Your task to perform on an android device: Open Google Chrome and click the shortcut for Amazon.com Image 0: 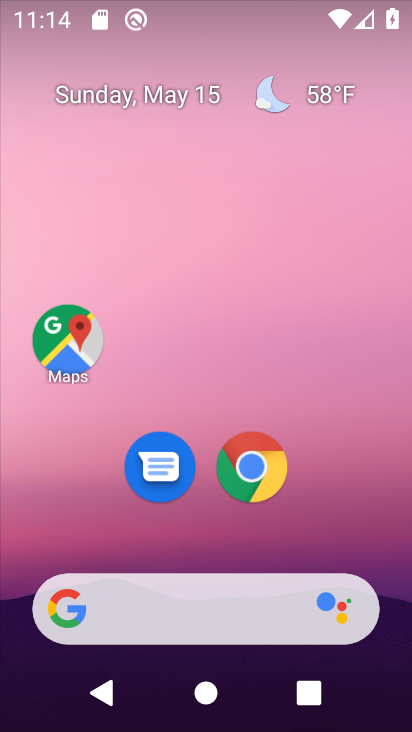
Step 0: click (247, 465)
Your task to perform on an android device: Open Google Chrome and click the shortcut for Amazon.com Image 1: 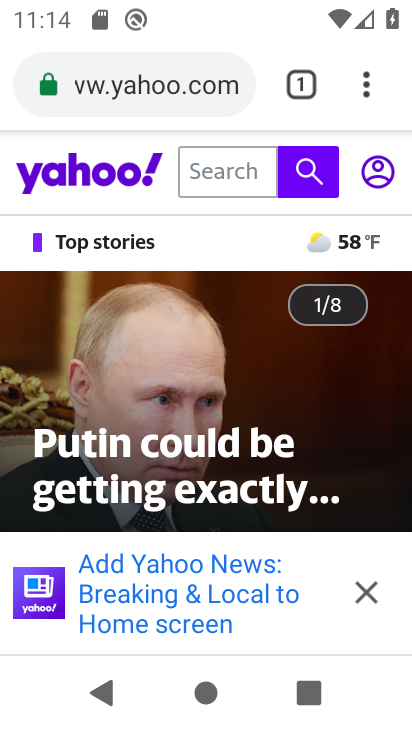
Step 1: press home button
Your task to perform on an android device: Open Google Chrome and click the shortcut for Amazon.com Image 2: 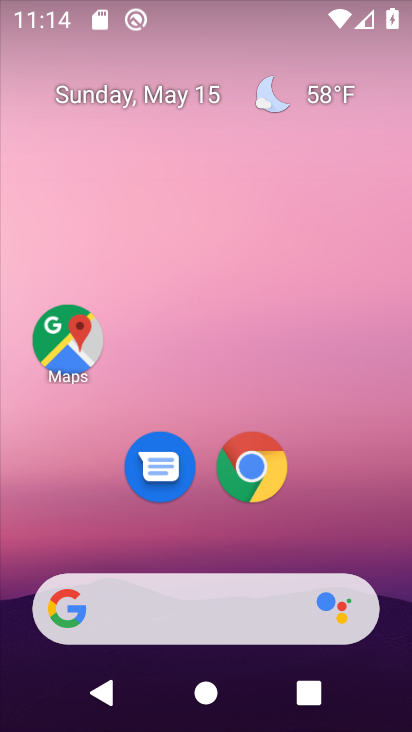
Step 2: click (255, 467)
Your task to perform on an android device: Open Google Chrome and click the shortcut for Amazon.com Image 3: 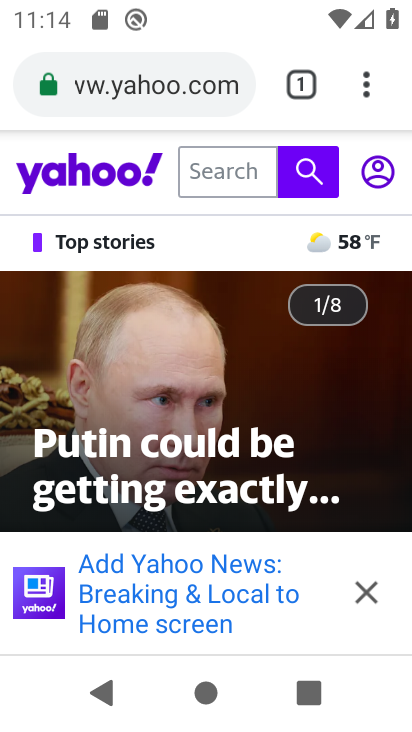
Step 3: click (290, 79)
Your task to perform on an android device: Open Google Chrome and click the shortcut for Amazon.com Image 4: 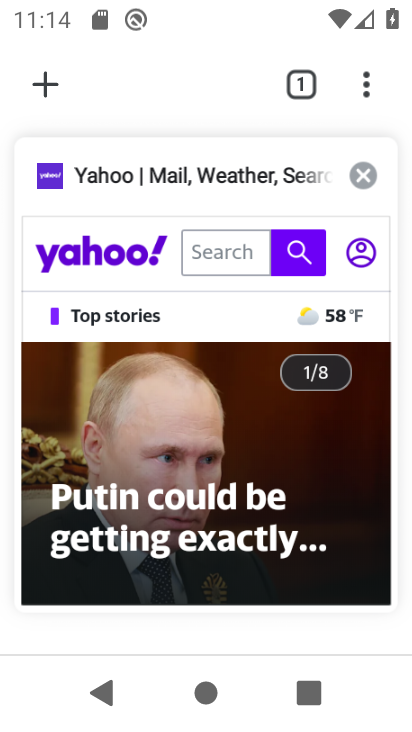
Step 4: click (364, 167)
Your task to perform on an android device: Open Google Chrome and click the shortcut for Amazon.com Image 5: 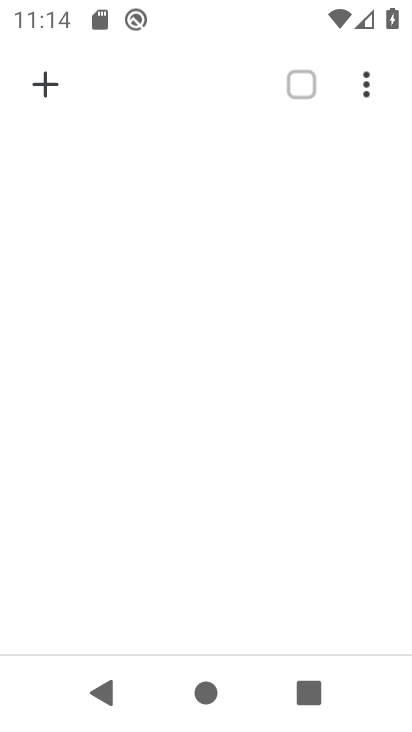
Step 5: click (49, 79)
Your task to perform on an android device: Open Google Chrome and click the shortcut for Amazon.com Image 6: 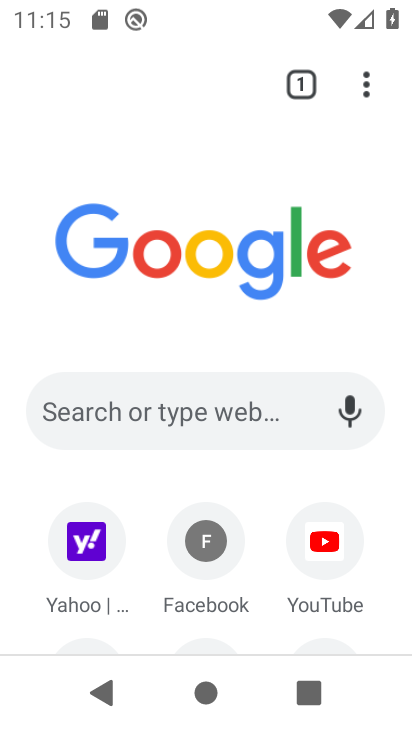
Step 6: drag from (268, 552) to (280, 238)
Your task to perform on an android device: Open Google Chrome and click the shortcut for Amazon.com Image 7: 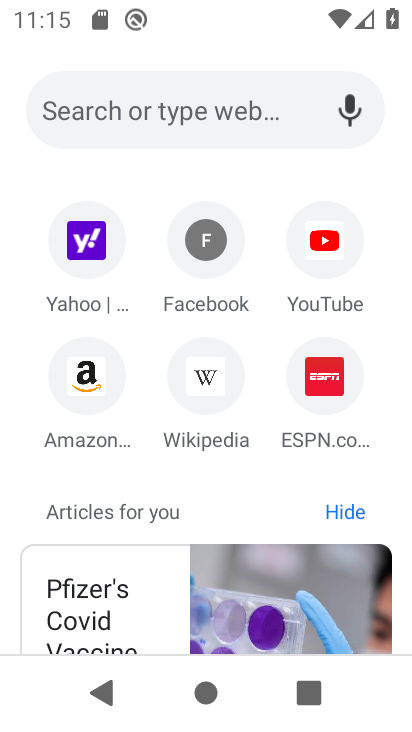
Step 7: click (79, 368)
Your task to perform on an android device: Open Google Chrome and click the shortcut for Amazon.com Image 8: 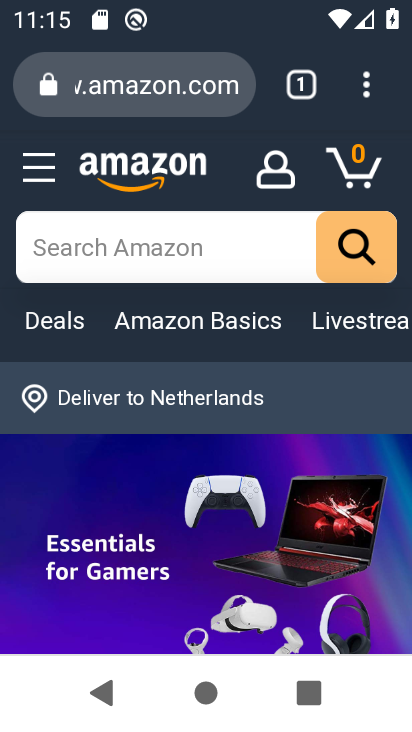
Step 8: task complete